Your task to perform on an android device: Go to eBay Image 0: 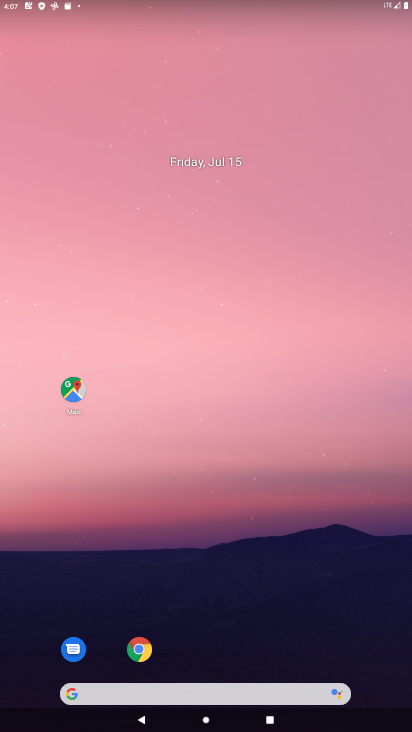
Step 0: drag from (304, 590) to (316, 57)
Your task to perform on an android device: Go to eBay Image 1: 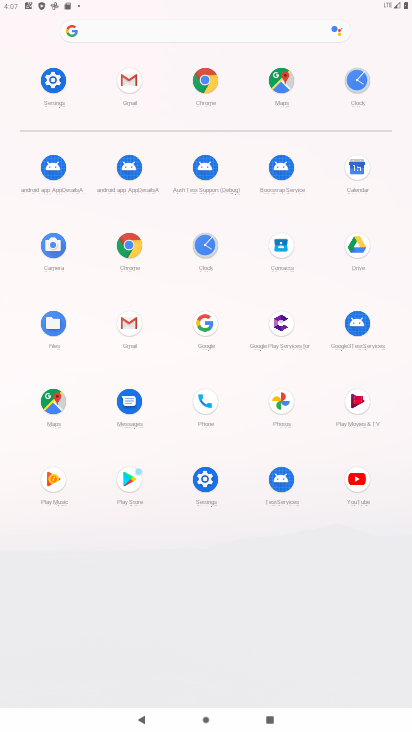
Step 1: click (206, 81)
Your task to perform on an android device: Go to eBay Image 2: 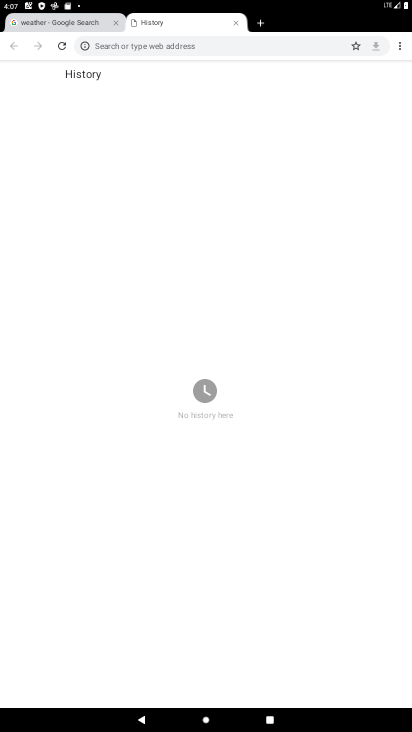
Step 2: click (216, 49)
Your task to perform on an android device: Go to eBay Image 3: 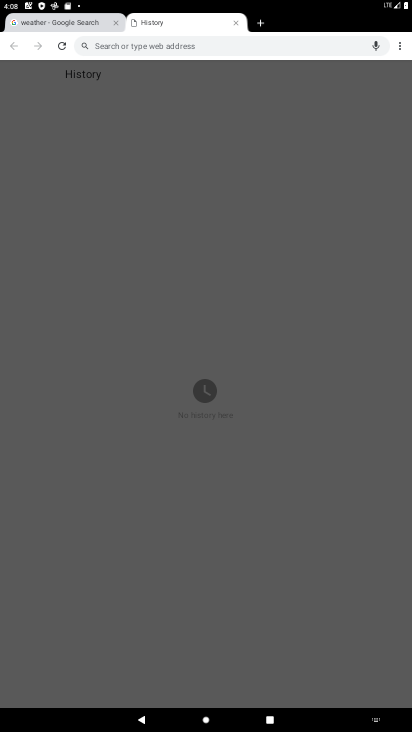
Step 3: type "ebay"
Your task to perform on an android device: Go to eBay Image 4: 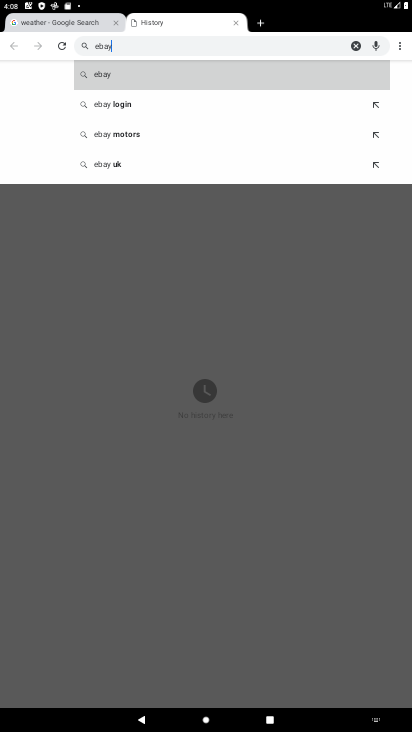
Step 4: click (101, 78)
Your task to perform on an android device: Go to eBay Image 5: 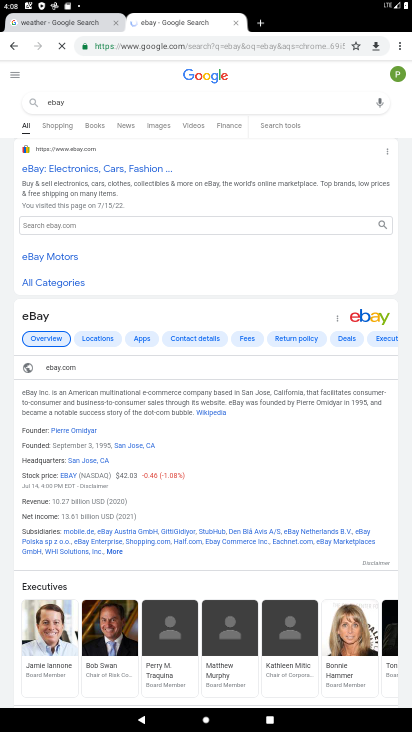
Step 5: click (75, 171)
Your task to perform on an android device: Go to eBay Image 6: 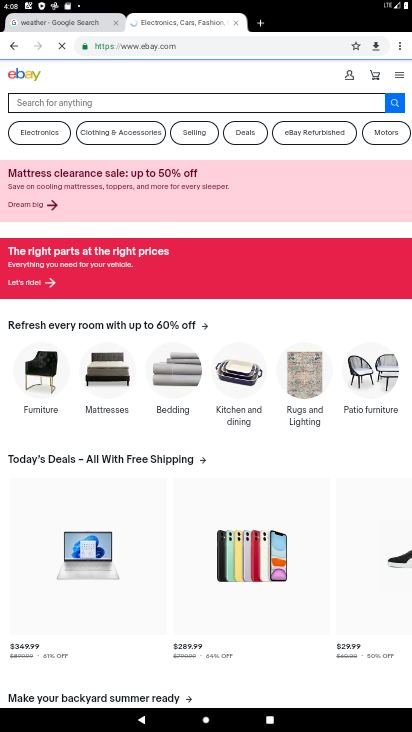
Step 6: task complete